Your task to perform on an android device: turn smart compose on in the gmail app Image 0: 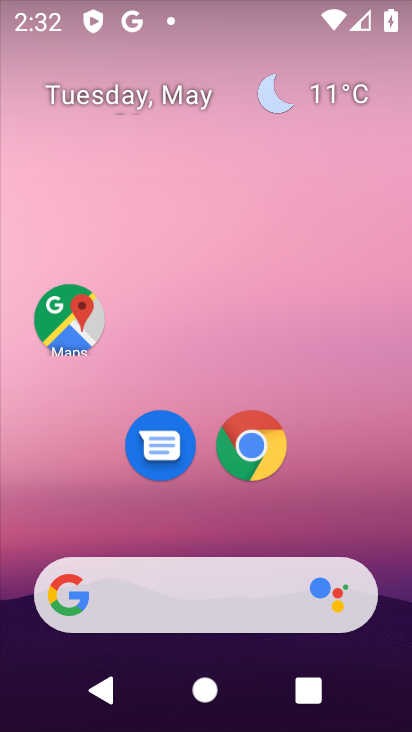
Step 0: drag from (213, 568) to (222, 210)
Your task to perform on an android device: turn smart compose on in the gmail app Image 1: 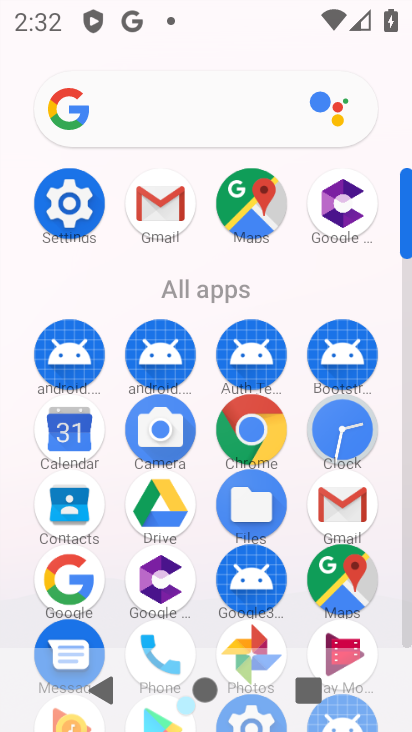
Step 1: click (172, 208)
Your task to perform on an android device: turn smart compose on in the gmail app Image 2: 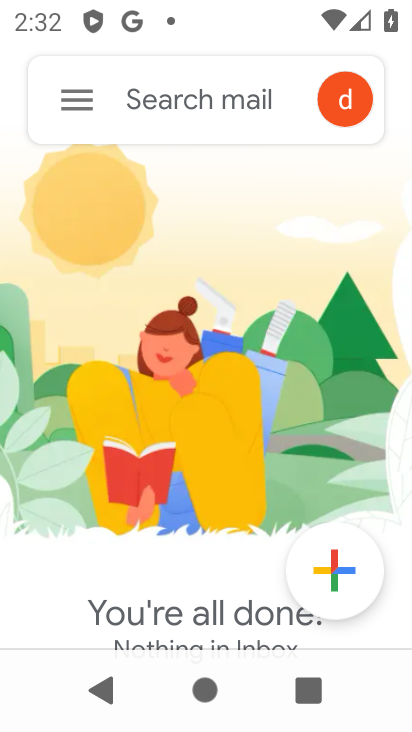
Step 2: click (65, 106)
Your task to perform on an android device: turn smart compose on in the gmail app Image 3: 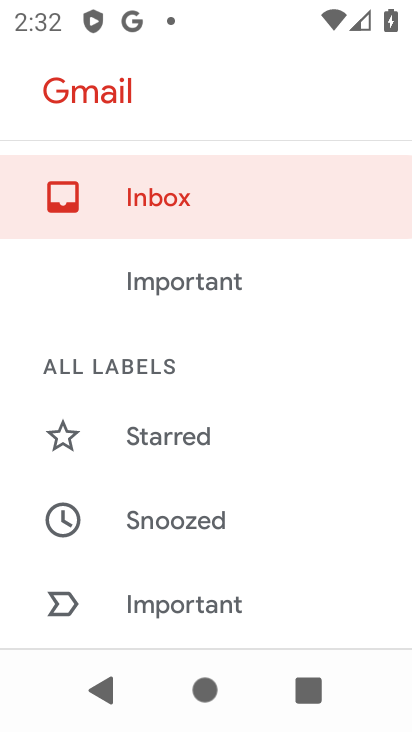
Step 3: drag from (204, 610) to (224, 220)
Your task to perform on an android device: turn smart compose on in the gmail app Image 4: 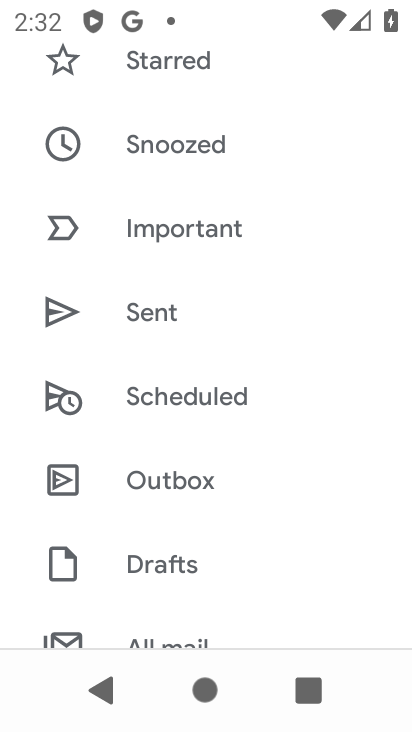
Step 4: drag from (200, 608) to (228, 251)
Your task to perform on an android device: turn smart compose on in the gmail app Image 5: 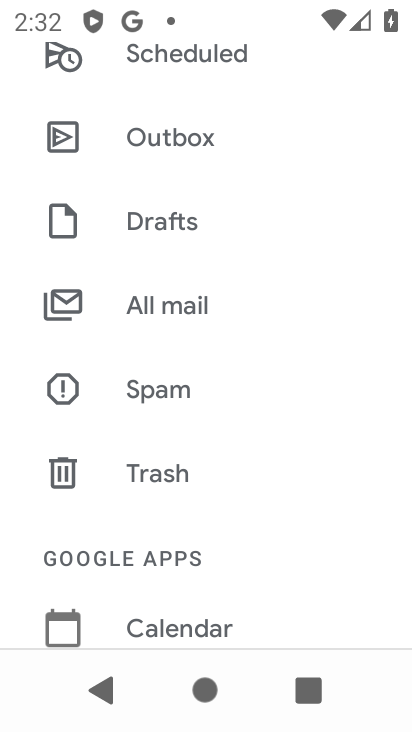
Step 5: drag from (201, 637) to (215, 323)
Your task to perform on an android device: turn smart compose on in the gmail app Image 6: 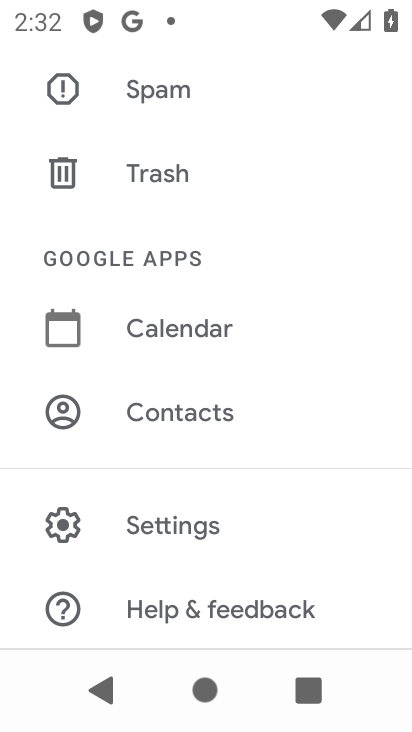
Step 6: click (191, 529)
Your task to perform on an android device: turn smart compose on in the gmail app Image 7: 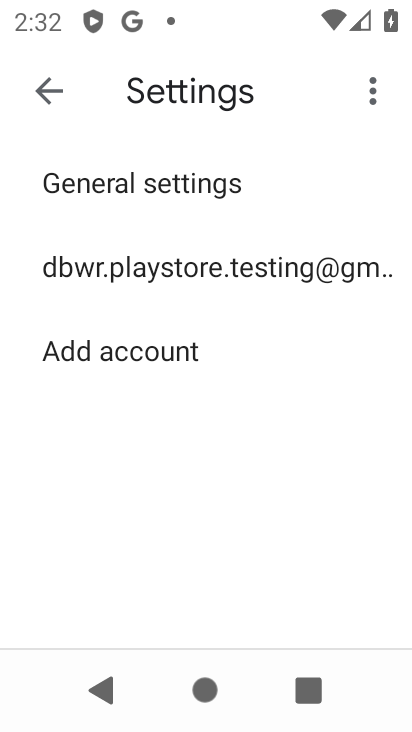
Step 7: click (146, 273)
Your task to perform on an android device: turn smart compose on in the gmail app Image 8: 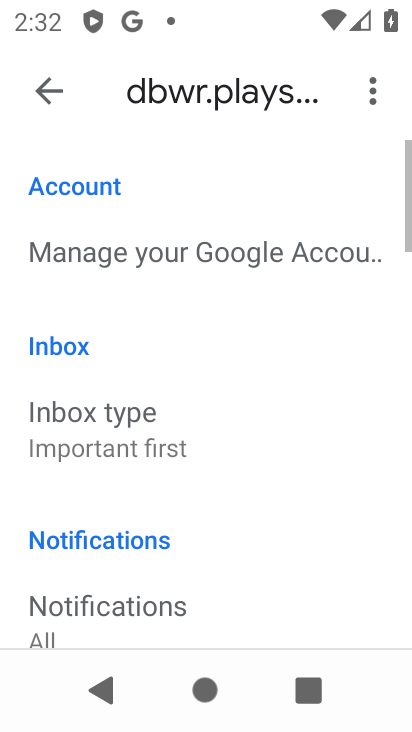
Step 8: task complete